Your task to perform on an android device: What is the recent news? Image 0: 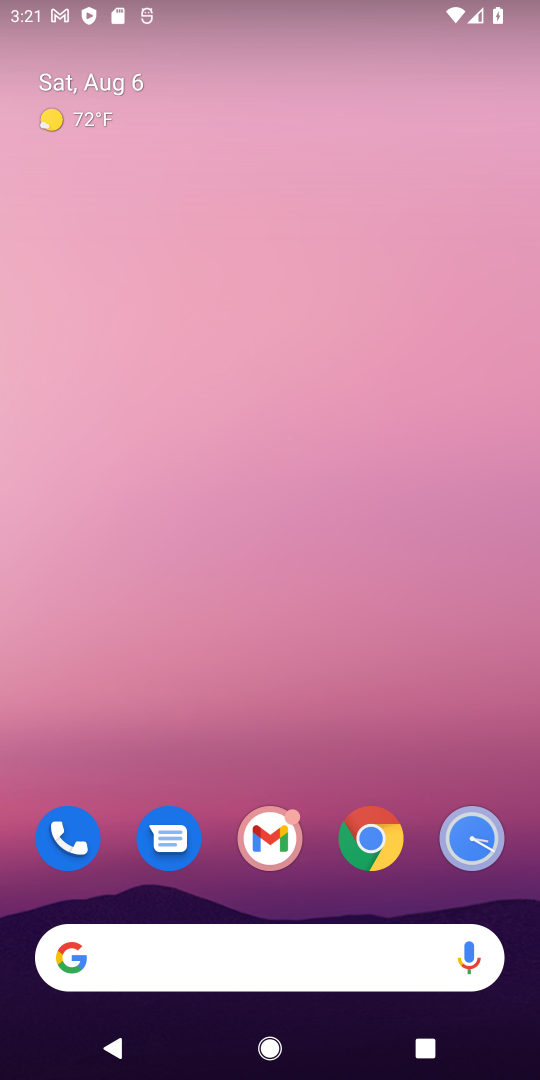
Step 0: click (326, 956)
Your task to perform on an android device: What is the recent news? Image 1: 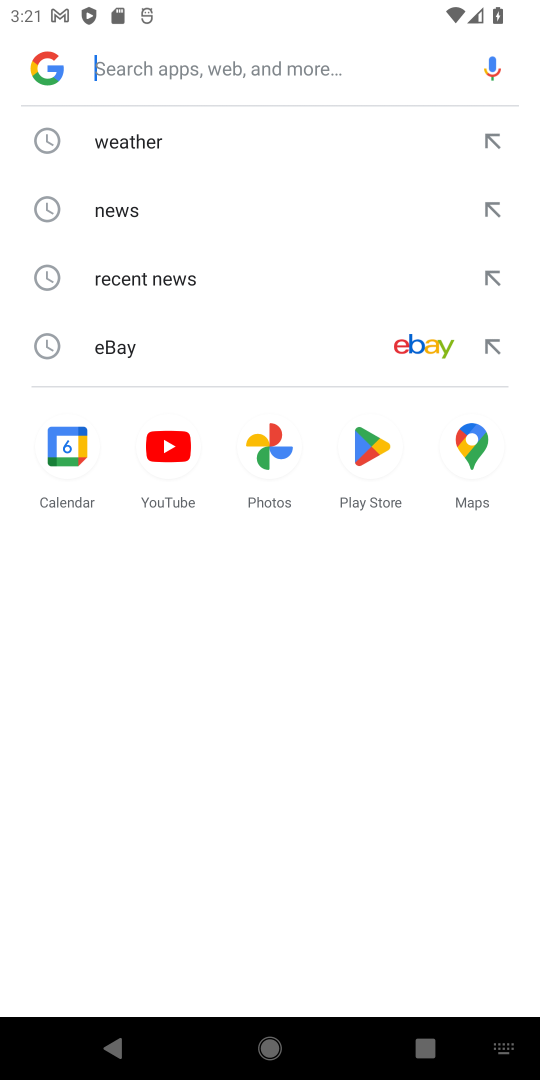
Step 1: click (130, 216)
Your task to perform on an android device: What is the recent news? Image 2: 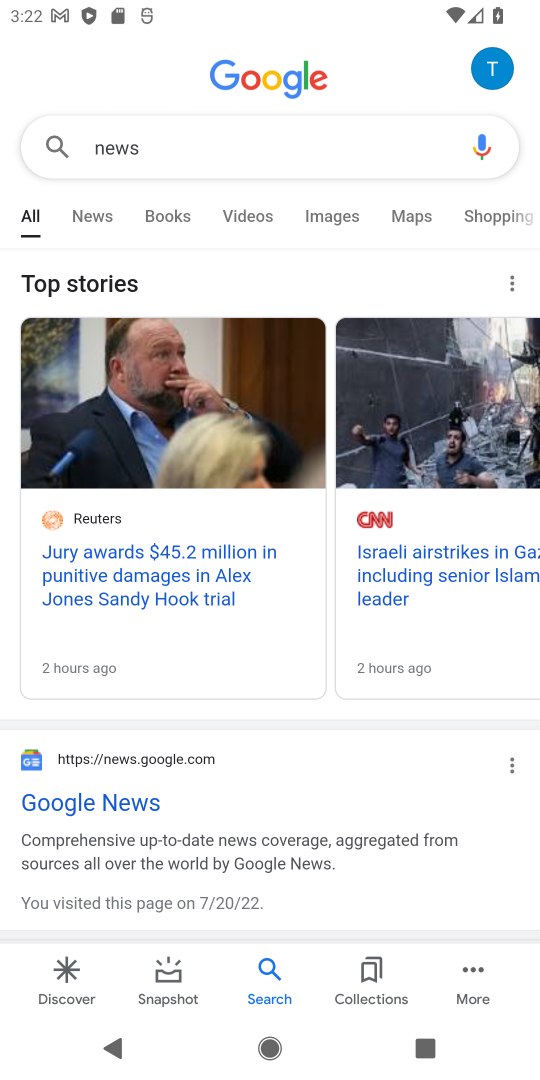
Step 2: task complete